Your task to perform on an android device: Search for seafood restaurants on Google Maps Image 0: 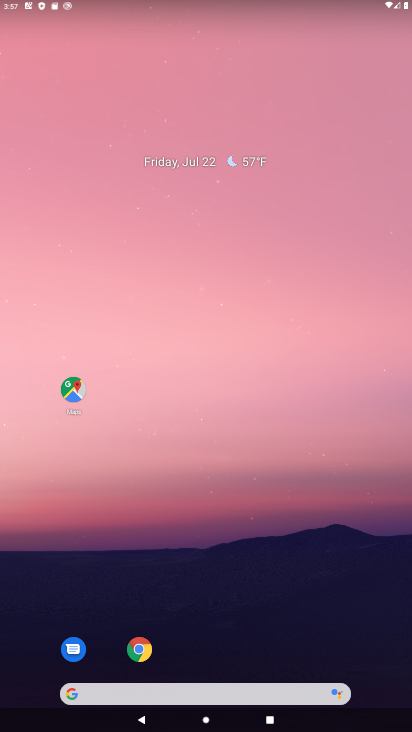
Step 0: click (71, 385)
Your task to perform on an android device: Search for seafood restaurants on Google Maps Image 1: 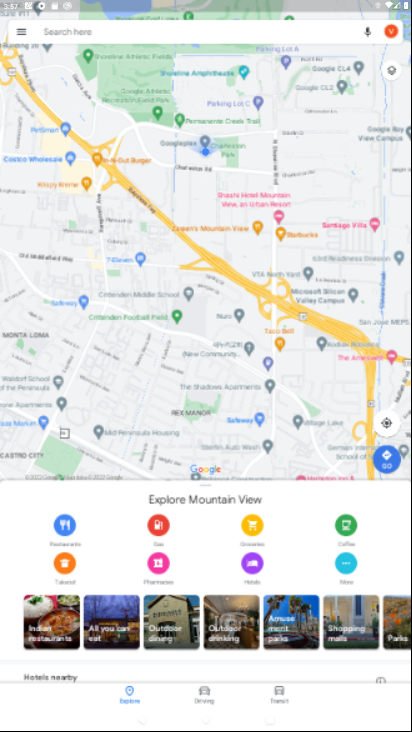
Step 1: click (92, 27)
Your task to perform on an android device: Search for seafood restaurants on Google Maps Image 2: 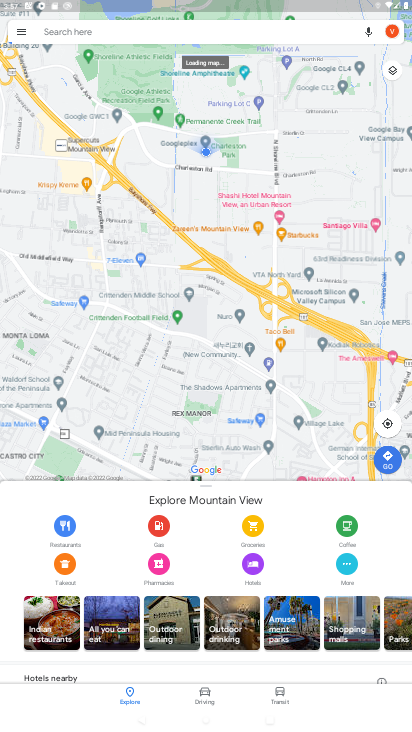
Step 2: click (47, 22)
Your task to perform on an android device: Search for seafood restaurants on Google Maps Image 3: 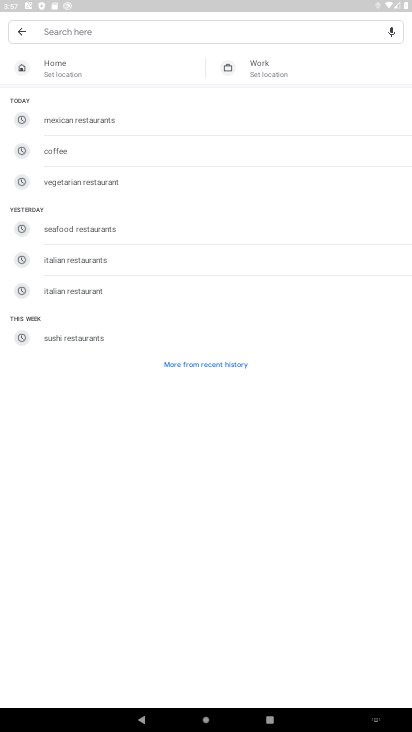
Step 3: click (61, 230)
Your task to perform on an android device: Search for seafood restaurants on Google Maps Image 4: 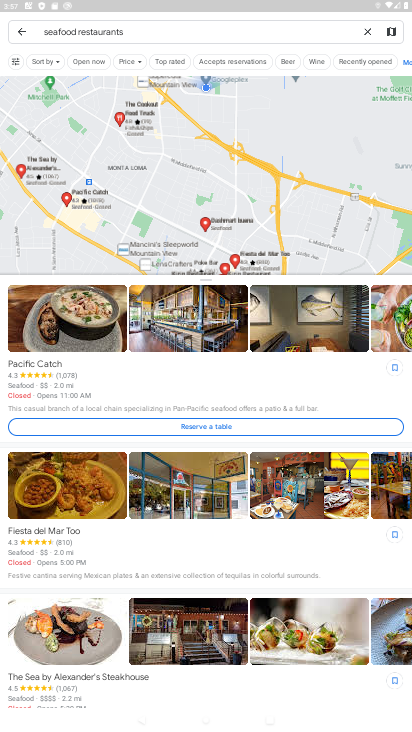
Step 4: task complete